Your task to perform on an android device: Search for Mexican restaurants on Maps Image 0: 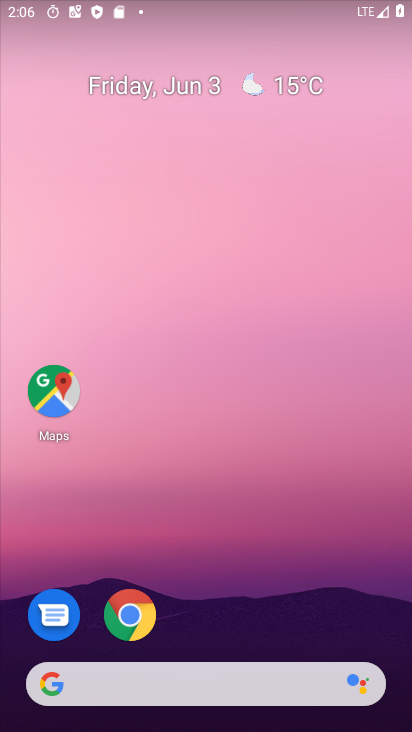
Step 0: click (92, 294)
Your task to perform on an android device: Search for Mexican restaurants on Maps Image 1: 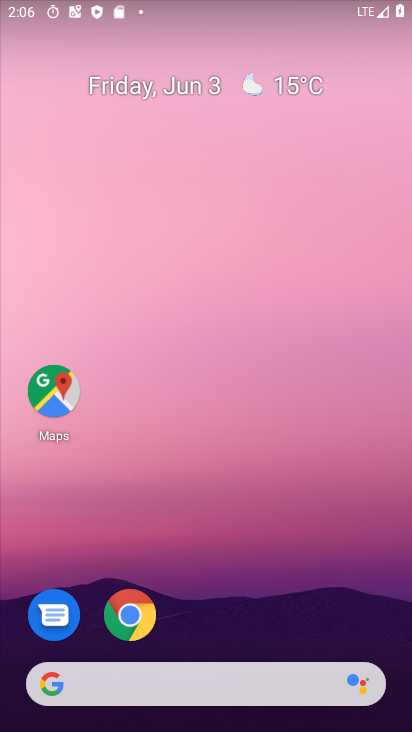
Step 1: drag from (188, 631) to (274, 13)
Your task to perform on an android device: Search for Mexican restaurants on Maps Image 2: 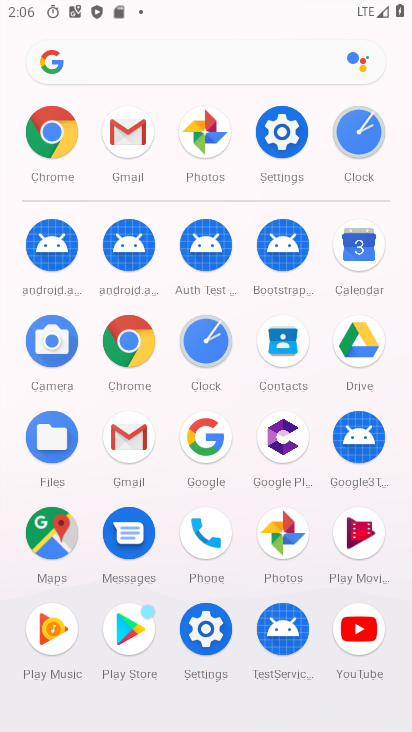
Step 2: click (49, 551)
Your task to perform on an android device: Search for Mexican restaurants on Maps Image 3: 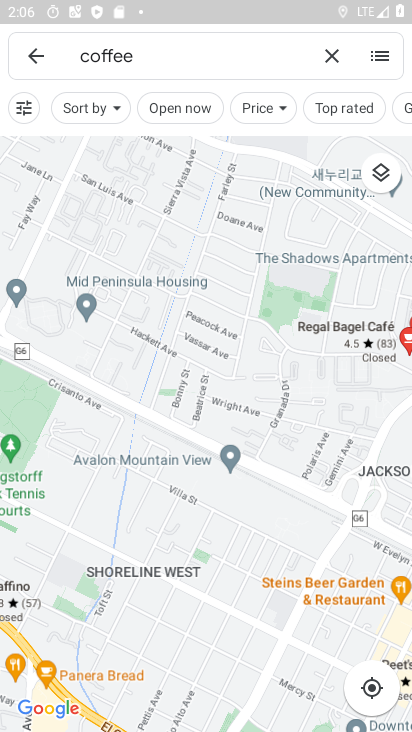
Step 3: drag from (219, 261) to (222, 632)
Your task to perform on an android device: Search for Mexican restaurants on Maps Image 4: 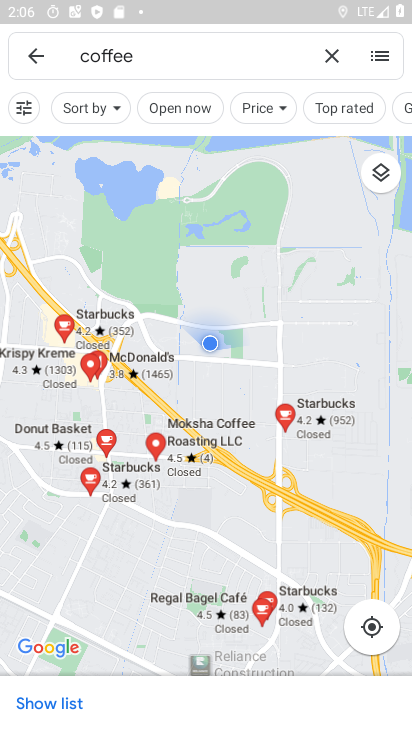
Step 4: click (329, 62)
Your task to perform on an android device: Search for Mexican restaurants on Maps Image 5: 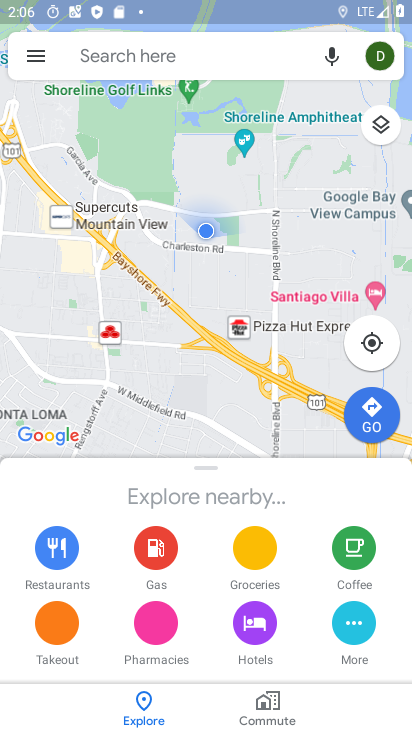
Step 5: click (192, 52)
Your task to perform on an android device: Search for Mexican restaurants on Maps Image 6: 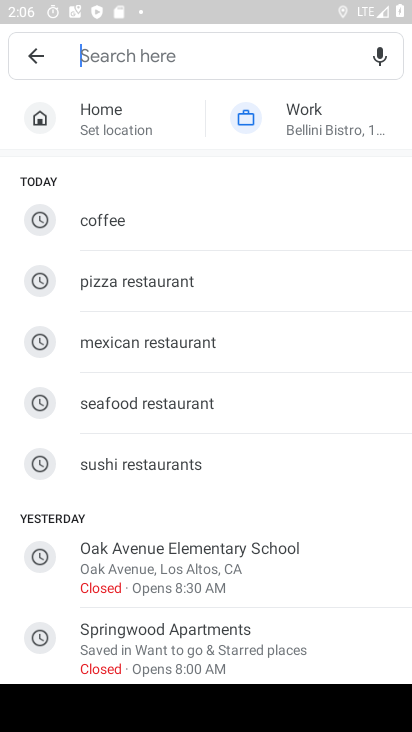
Step 6: click (102, 342)
Your task to perform on an android device: Search for Mexican restaurants on Maps Image 7: 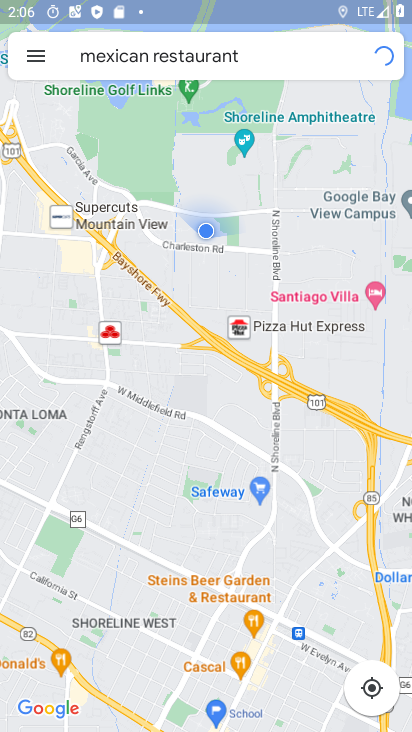
Step 7: task complete